Your task to perform on an android device: delete browsing data in the chrome app Image 0: 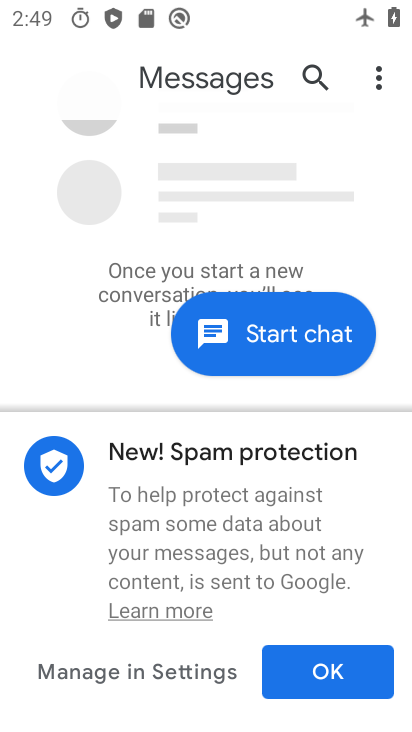
Step 0: press home button
Your task to perform on an android device: delete browsing data in the chrome app Image 1: 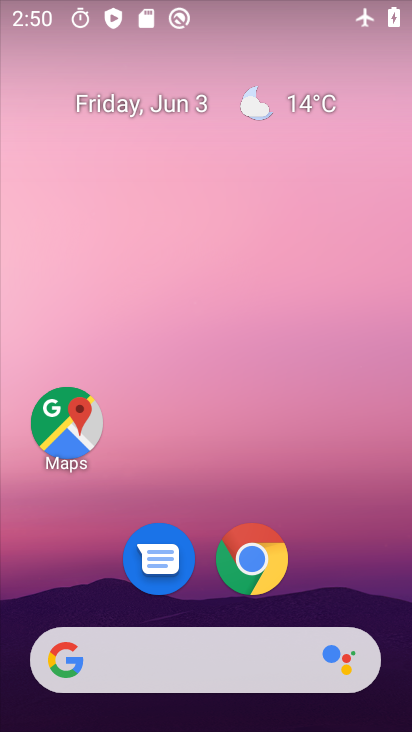
Step 1: click (250, 567)
Your task to perform on an android device: delete browsing data in the chrome app Image 2: 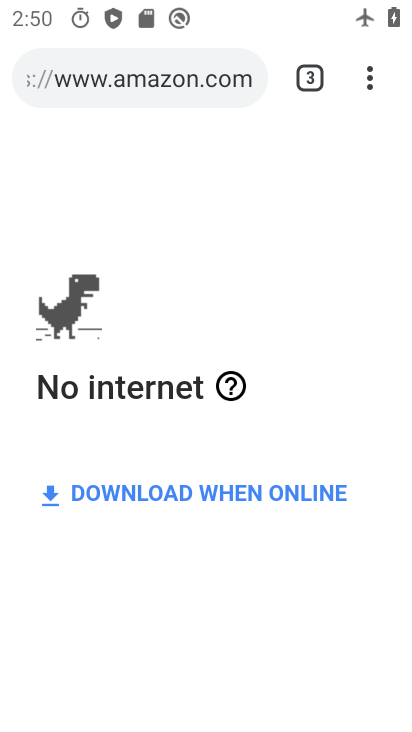
Step 2: click (362, 81)
Your task to perform on an android device: delete browsing data in the chrome app Image 3: 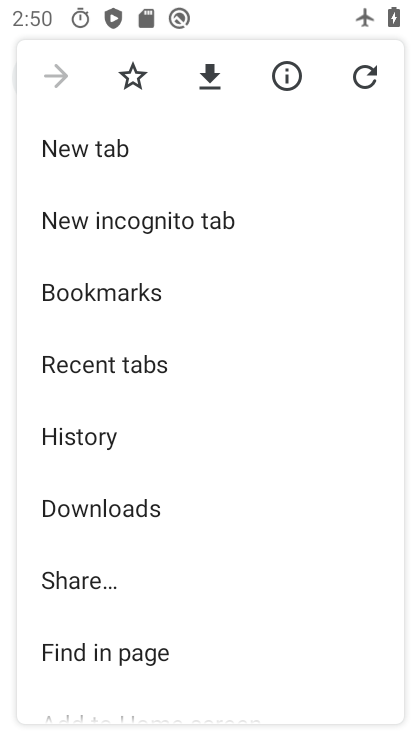
Step 3: click (92, 435)
Your task to perform on an android device: delete browsing data in the chrome app Image 4: 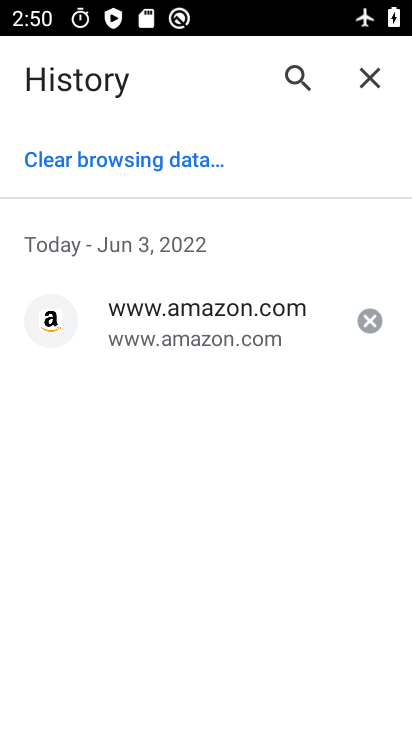
Step 4: click (108, 183)
Your task to perform on an android device: delete browsing data in the chrome app Image 5: 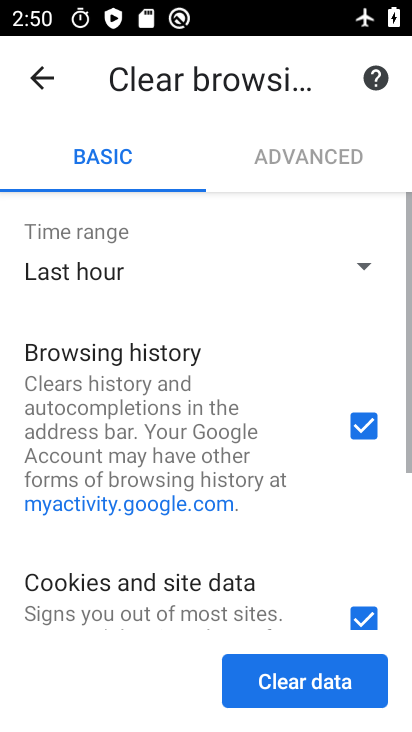
Step 5: click (299, 681)
Your task to perform on an android device: delete browsing data in the chrome app Image 6: 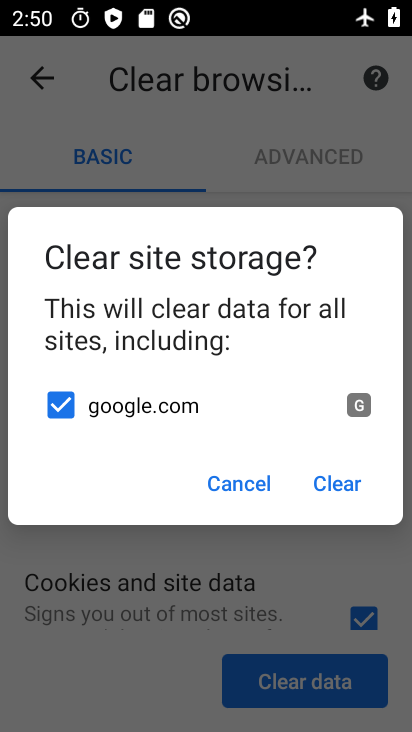
Step 6: click (311, 488)
Your task to perform on an android device: delete browsing data in the chrome app Image 7: 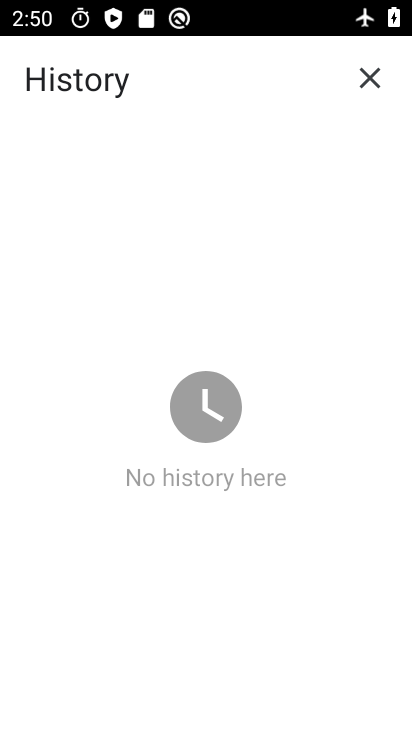
Step 7: task complete